Your task to perform on an android device: Open calendar and show me the fourth week of next month Image 0: 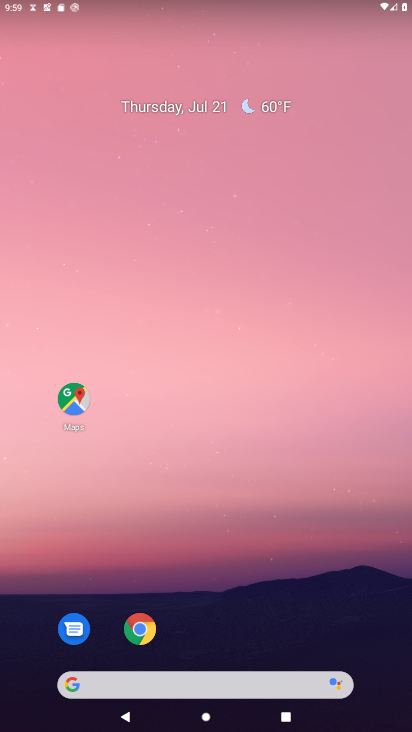
Step 0: click (238, 216)
Your task to perform on an android device: Open calendar and show me the fourth week of next month Image 1: 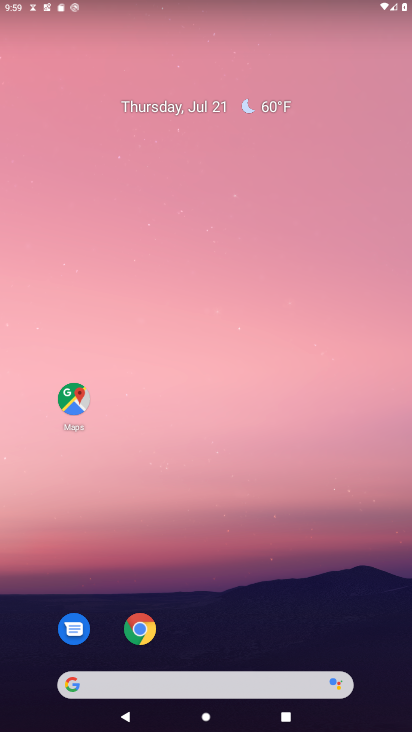
Step 1: drag from (219, 631) to (212, 230)
Your task to perform on an android device: Open calendar and show me the fourth week of next month Image 2: 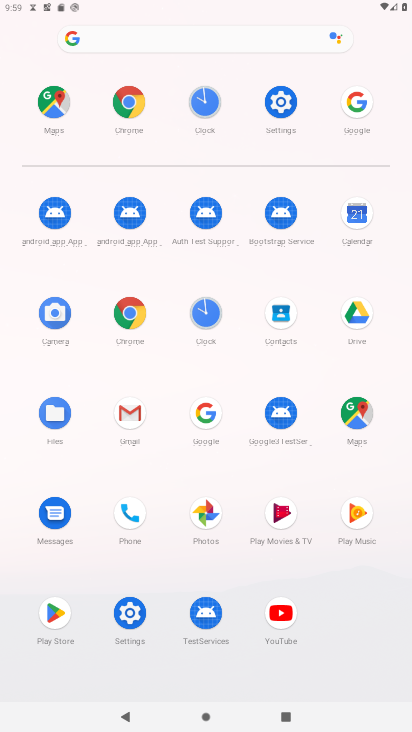
Step 2: click (362, 221)
Your task to perform on an android device: Open calendar and show me the fourth week of next month Image 3: 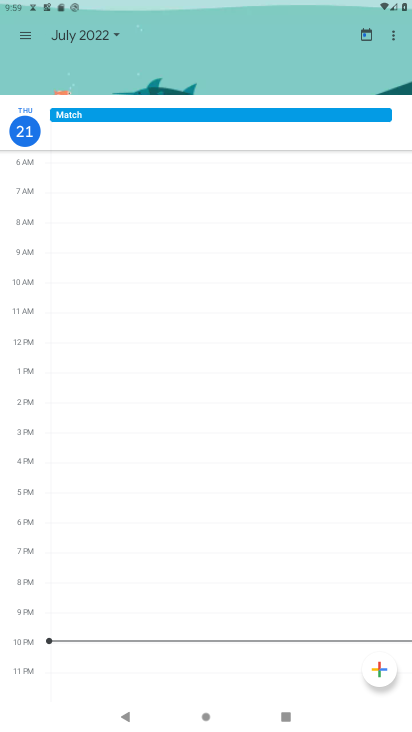
Step 3: click (21, 34)
Your task to perform on an android device: Open calendar and show me the fourth week of next month Image 4: 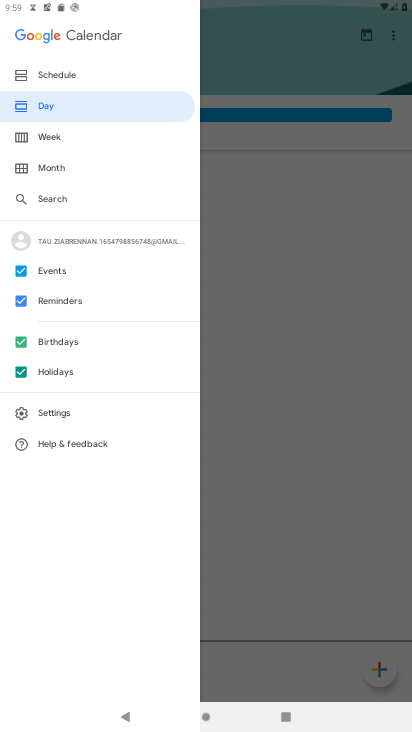
Step 4: click (76, 168)
Your task to perform on an android device: Open calendar and show me the fourth week of next month Image 5: 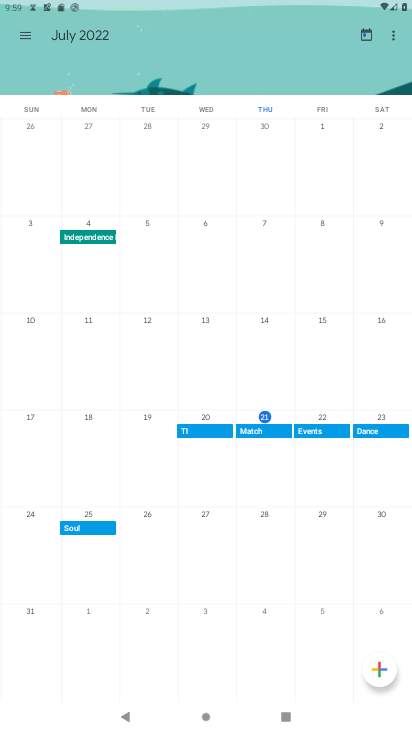
Step 5: drag from (307, 206) to (4, 120)
Your task to perform on an android device: Open calendar and show me the fourth week of next month Image 6: 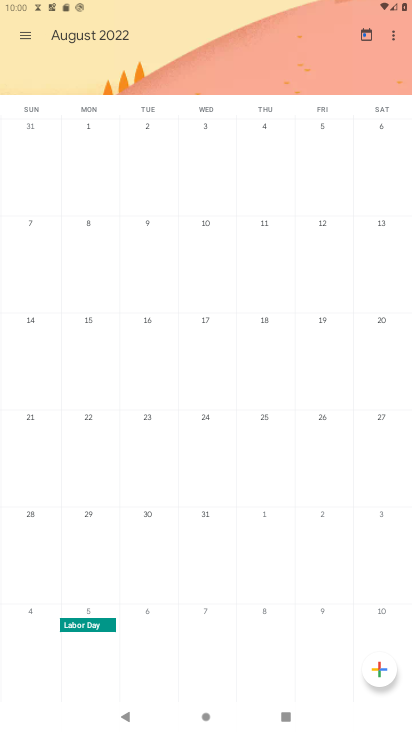
Step 6: click (20, 35)
Your task to perform on an android device: Open calendar and show me the fourth week of next month Image 7: 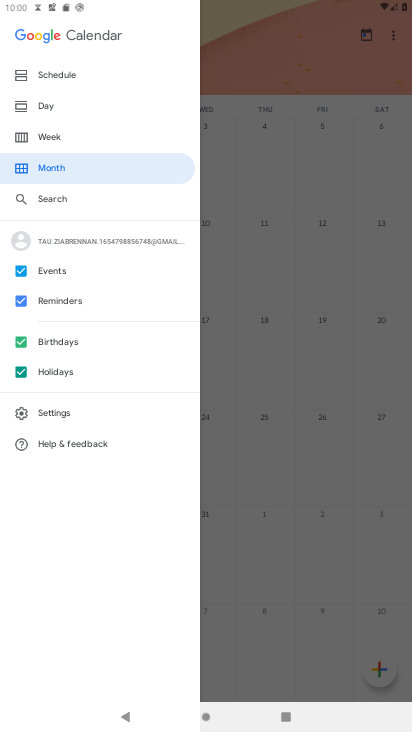
Step 7: click (64, 132)
Your task to perform on an android device: Open calendar and show me the fourth week of next month Image 8: 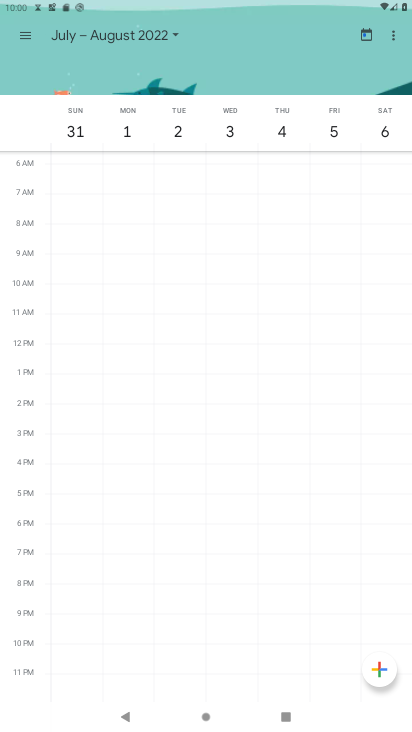
Step 8: task complete